Your task to perform on an android device: What is the news today? Image 0: 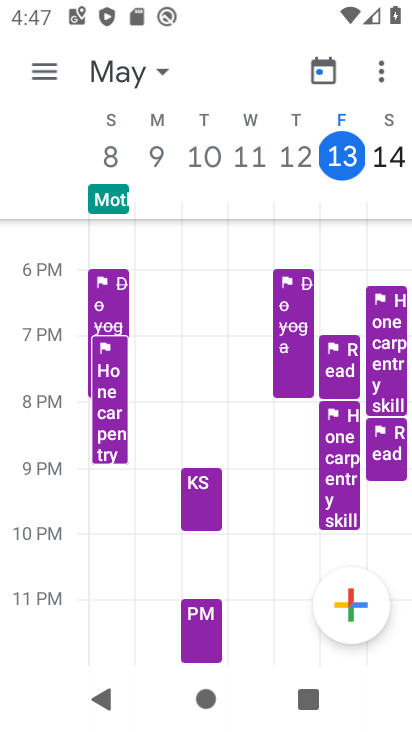
Step 0: press home button
Your task to perform on an android device: What is the news today? Image 1: 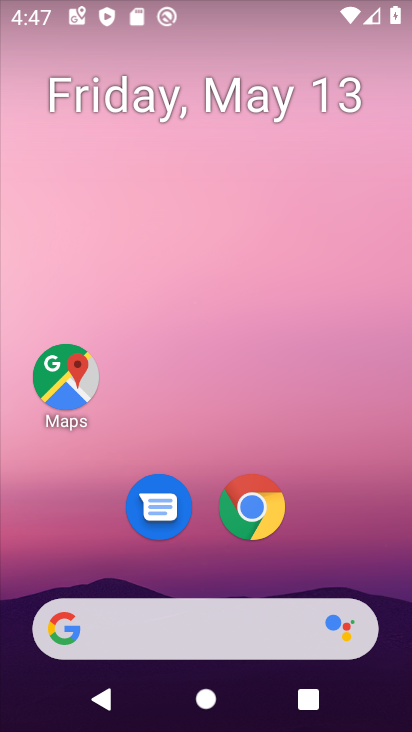
Step 1: drag from (327, 545) to (219, 85)
Your task to perform on an android device: What is the news today? Image 2: 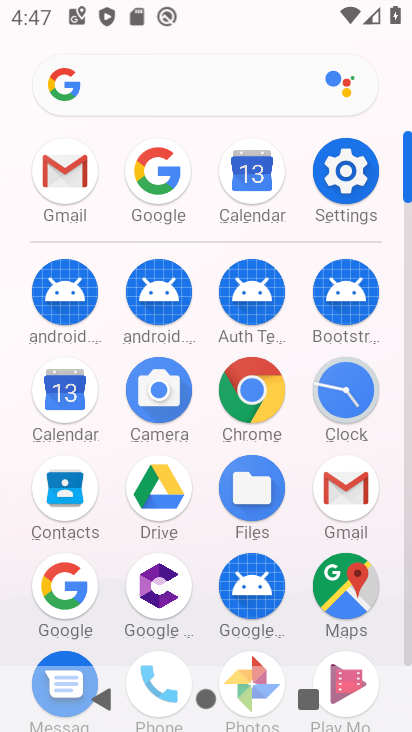
Step 2: click (67, 586)
Your task to perform on an android device: What is the news today? Image 3: 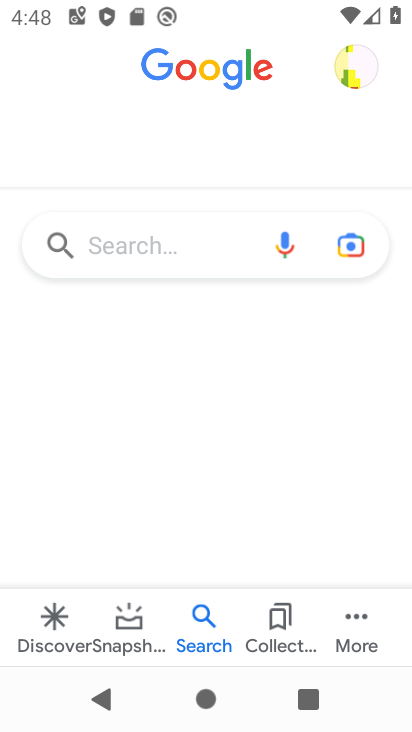
Step 3: click (145, 257)
Your task to perform on an android device: What is the news today? Image 4: 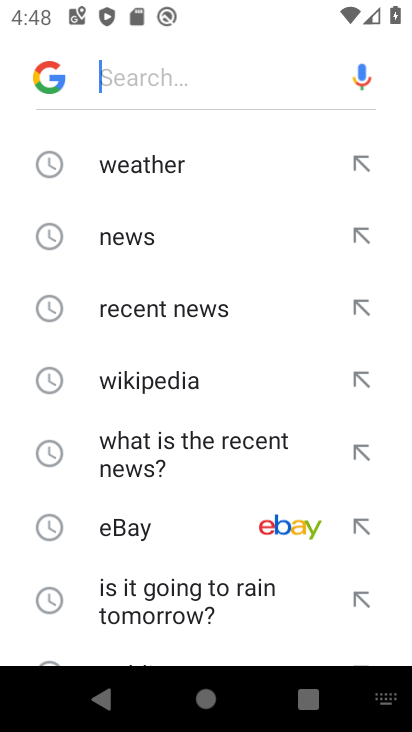
Step 4: click (145, 241)
Your task to perform on an android device: What is the news today? Image 5: 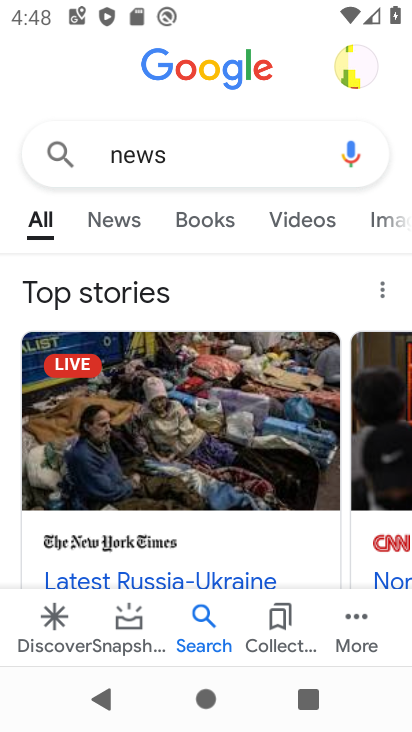
Step 5: task complete